Your task to perform on an android device: Search for seafood restaurants on Google Maps Image 0: 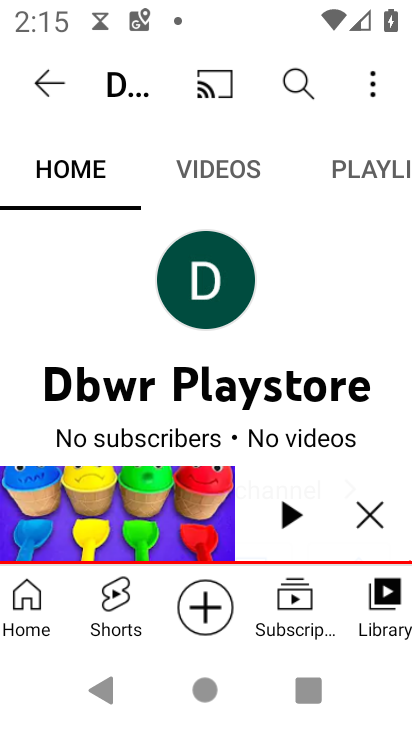
Step 0: press home button
Your task to perform on an android device: Search for seafood restaurants on Google Maps Image 1: 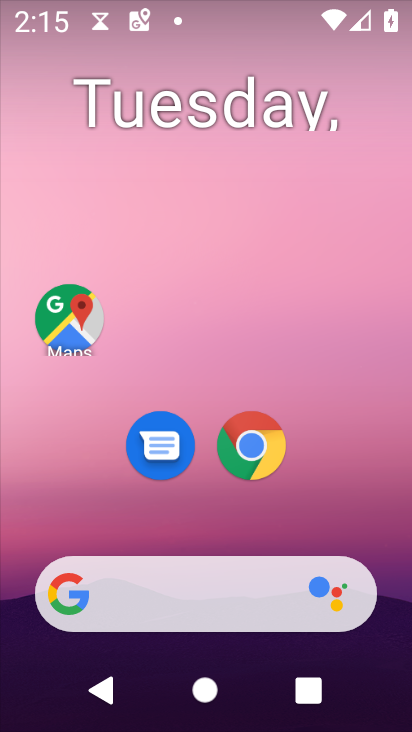
Step 1: drag from (297, 540) to (324, 19)
Your task to perform on an android device: Search for seafood restaurants on Google Maps Image 2: 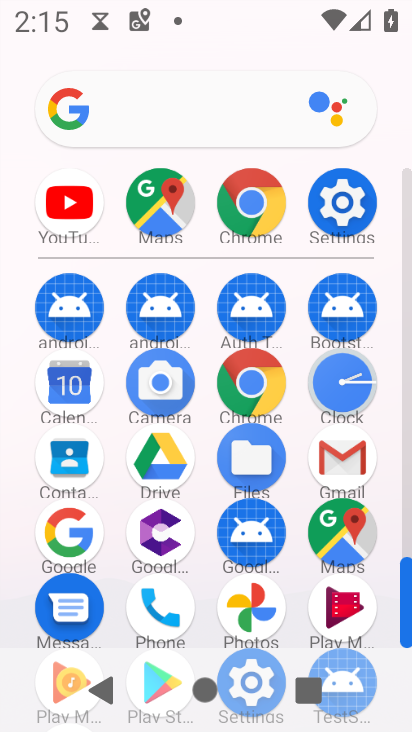
Step 2: click (339, 539)
Your task to perform on an android device: Search for seafood restaurants on Google Maps Image 3: 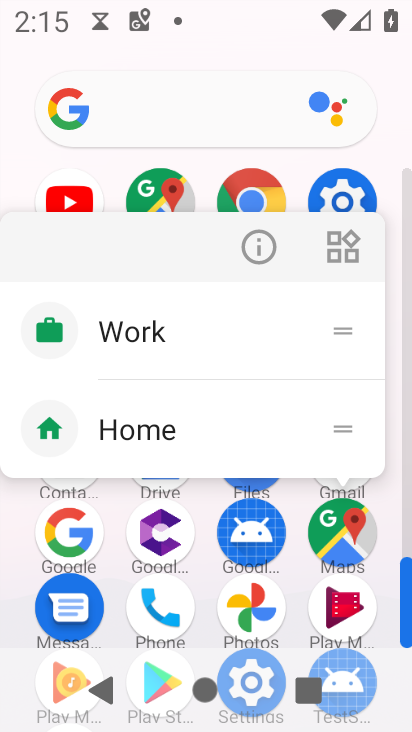
Step 3: click (339, 539)
Your task to perform on an android device: Search for seafood restaurants on Google Maps Image 4: 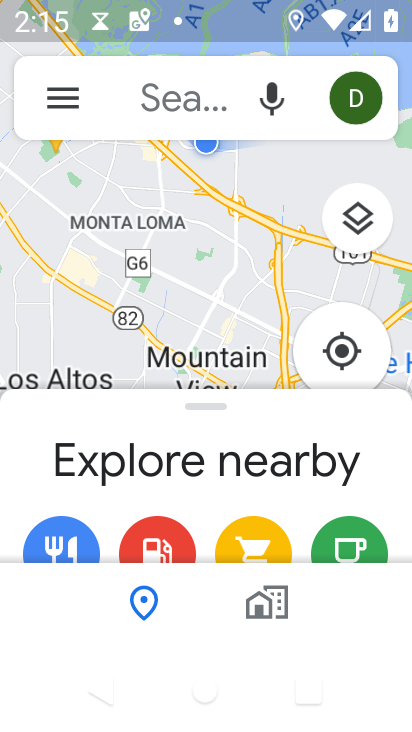
Step 4: click (200, 114)
Your task to perform on an android device: Search for seafood restaurants on Google Maps Image 5: 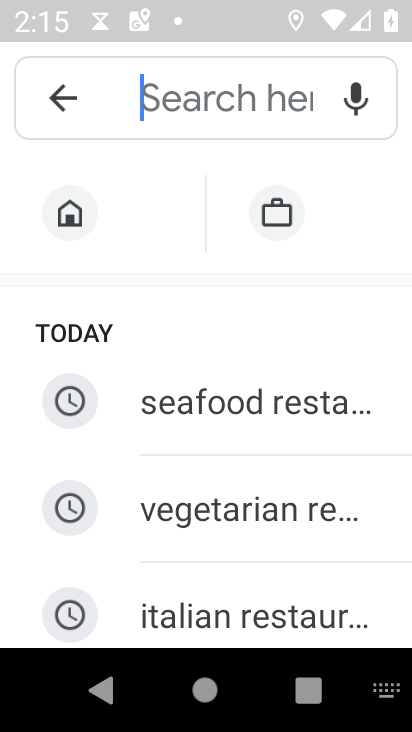
Step 5: click (303, 409)
Your task to perform on an android device: Search for seafood restaurants on Google Maps Image 6: 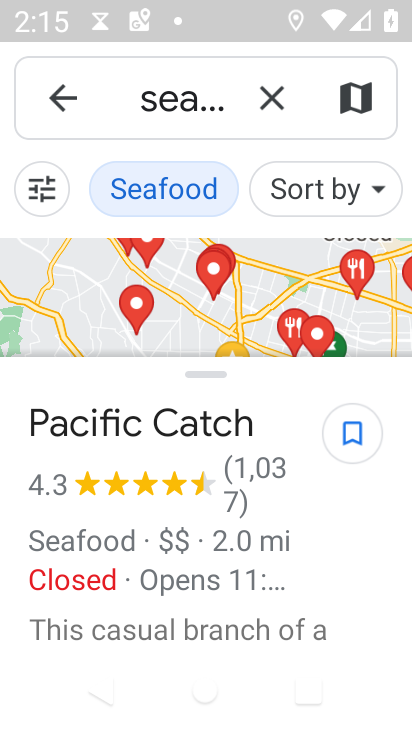
Step 6: task complete